Your task to perform on an android device: Open calendar and show me the second week of next month Image 0: 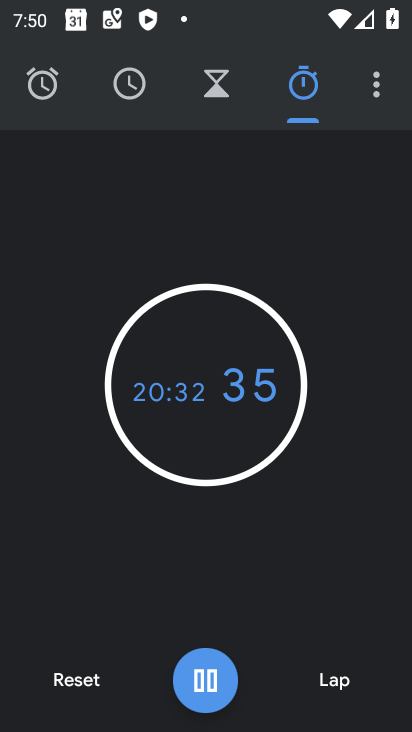
Step 0: press home button
Your task to perform on an android device: Open calendar and show me the second week of next month Image 1: 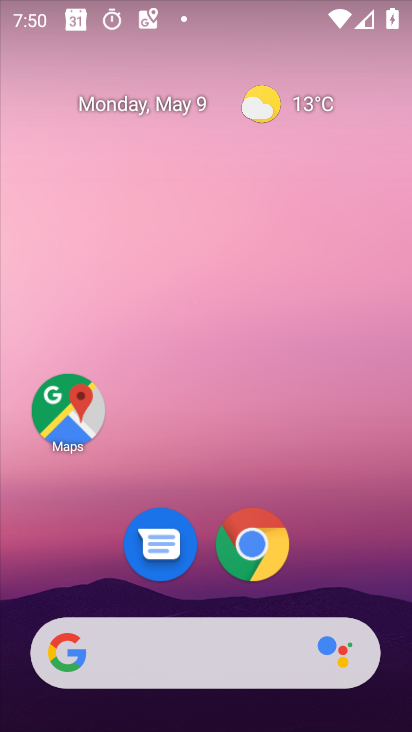
Step 1: drag from (382, 532) to (360, 16)
Your task to perform on an android device: Open calendar and show me the second week of next month Image 2: 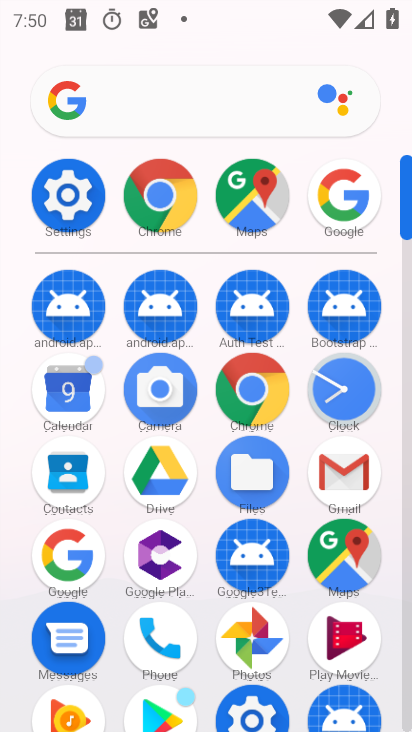
Step 2: click (80, 406)
Your task to perform on an android device: Open calendar and show me the second week of next month Image 3: 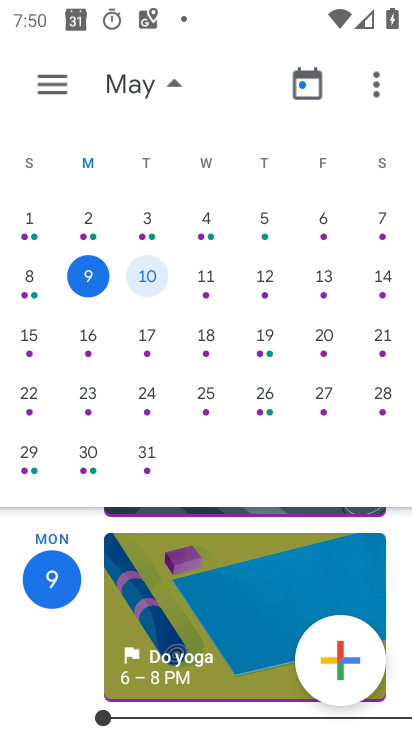
Step 3: drag from (388, 346) to (2, 345)
Your task to perform on an android device: Open calendar and show me the second week of next month Image 4: 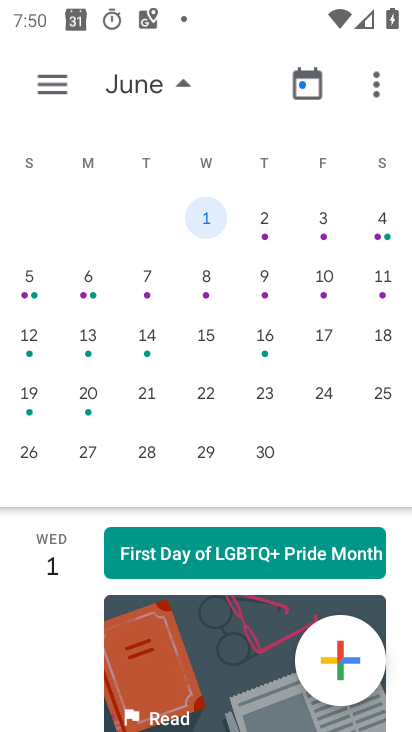
Step 4: click (135, 339)
Your task to perform on an android device: Open calendar and show me the second week of next month Image 5: 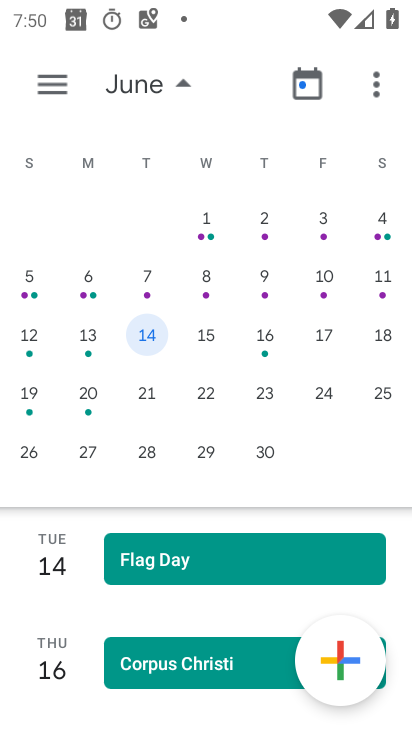
Step 5: task complete